Your task to perform on an android device: set an alarm Image 0: 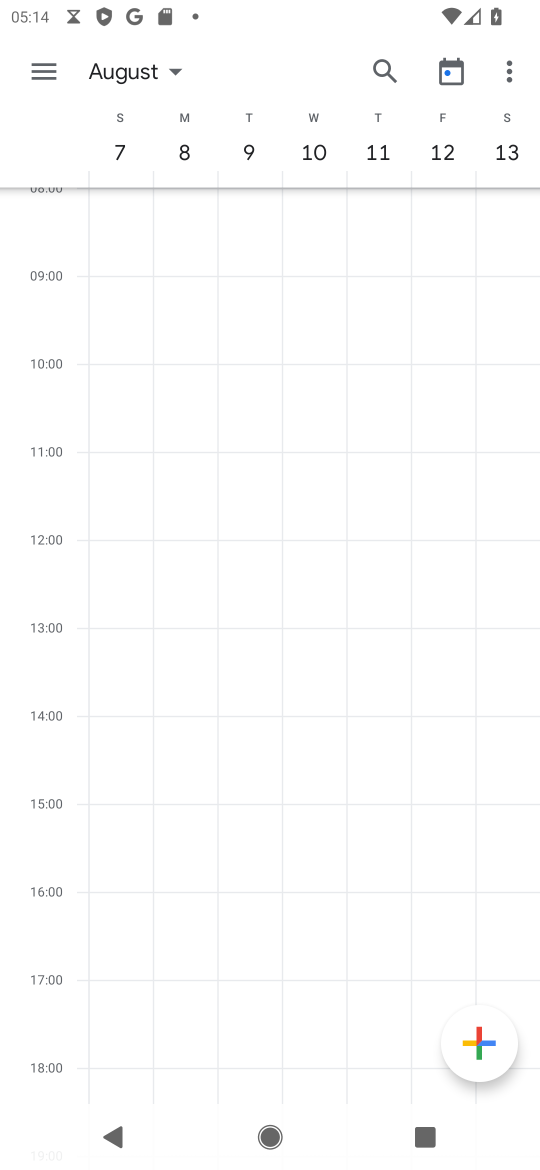
Step 0: press home button
Your task to perform on an android device: set an alarm Image 1: 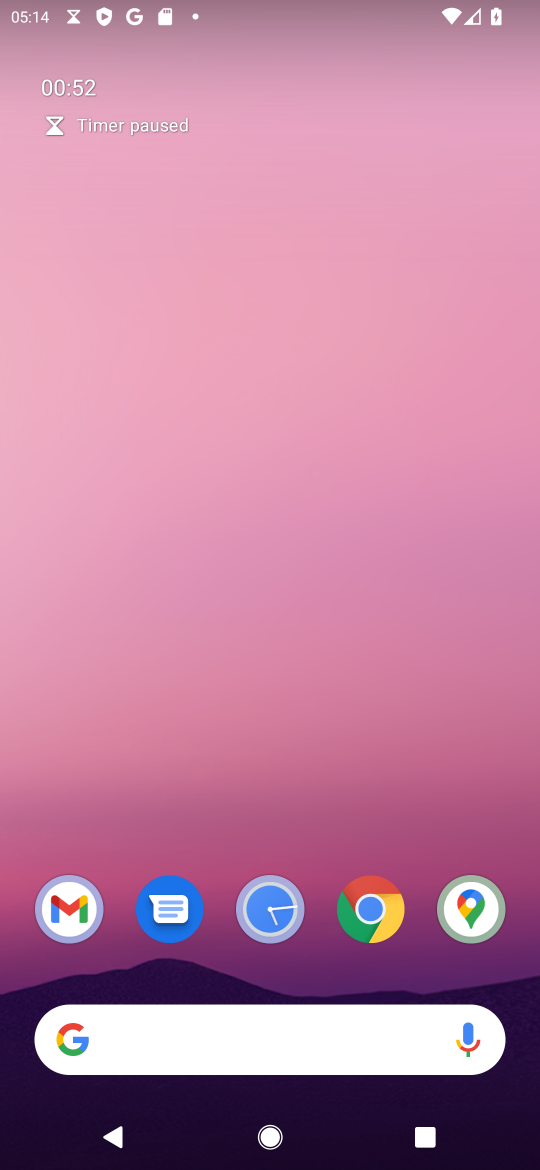
Step 1: click (255, 896)
Your task to perform on an android device: set an alarm Image 2: 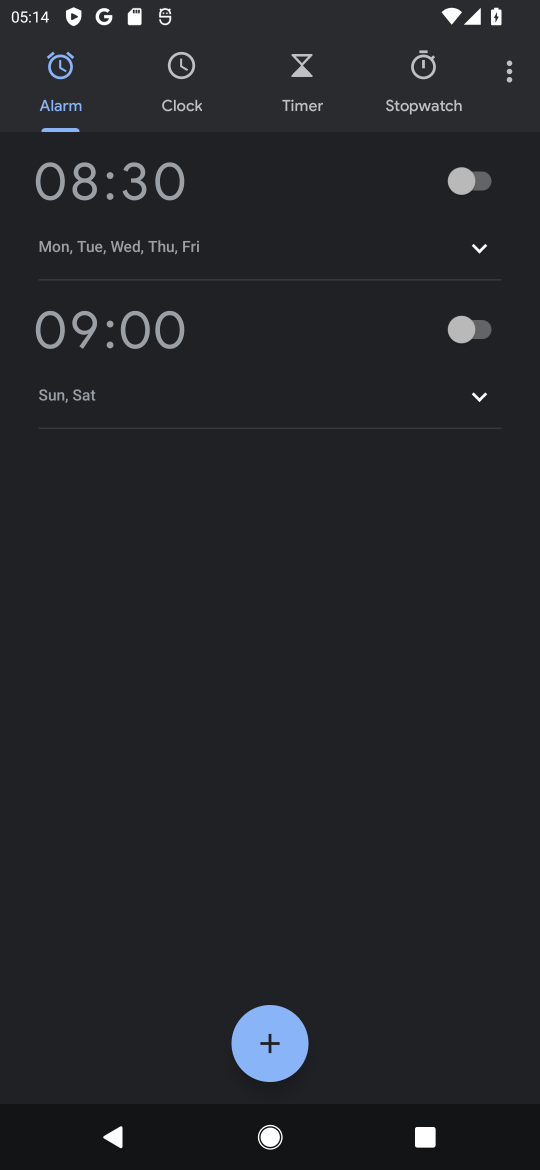
Step 2: click (485, 184)
Your task to perform on an android device: set an alarm Image 3: 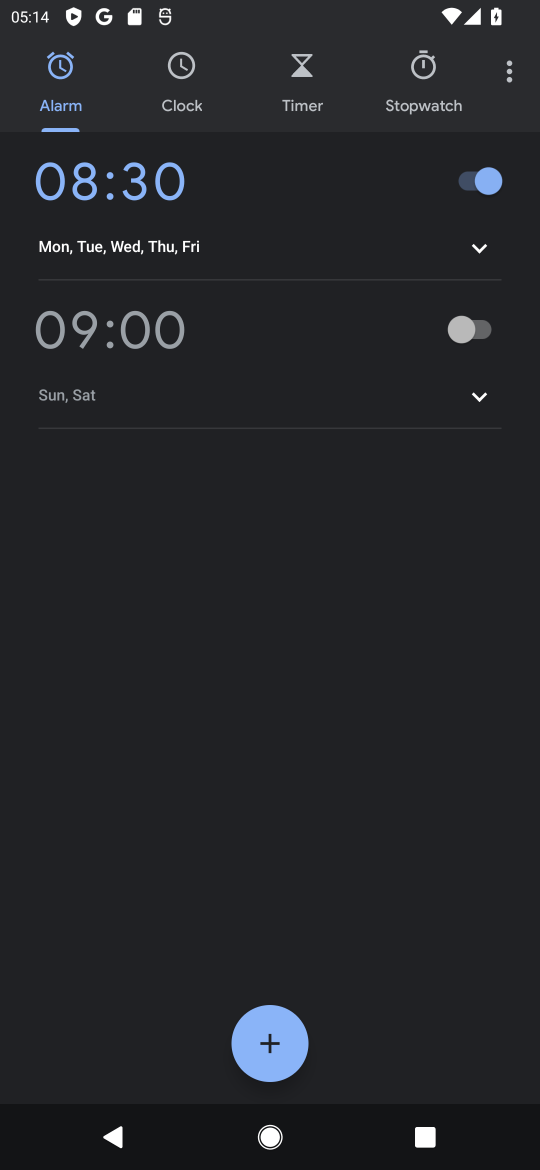
Step 3: task complete